Your task to perform on an android device: Go to Wikipedia Image 0: 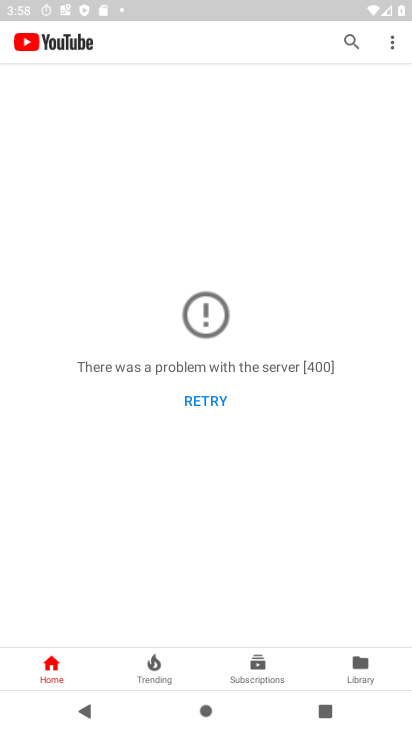
Step 0: press home button
Your task to perform on an android device: Go to Wikipedia Image 1: 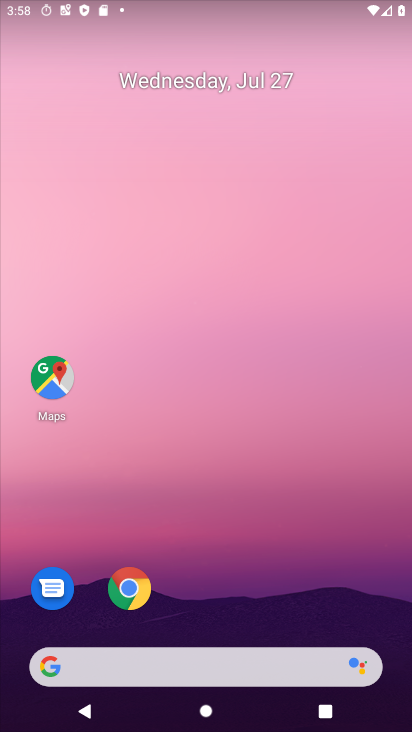
Step 1: click (54, 667)
Your task to perform on an android device: Go to Wikipedia Image 2: 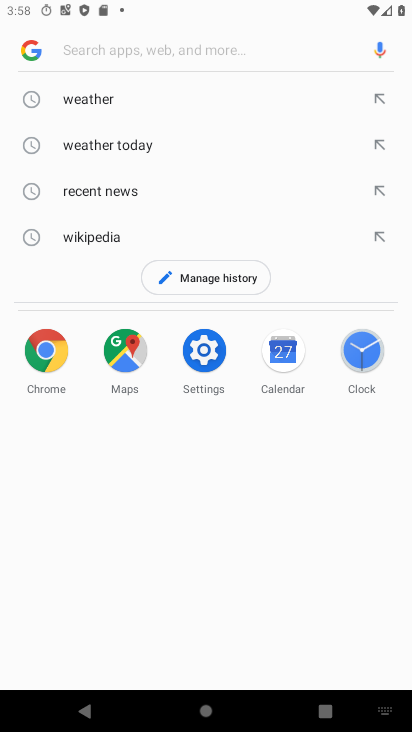
Step 2: click (89, 240)
Your task to perform on an android device: Go to Wikipedia Image 3: 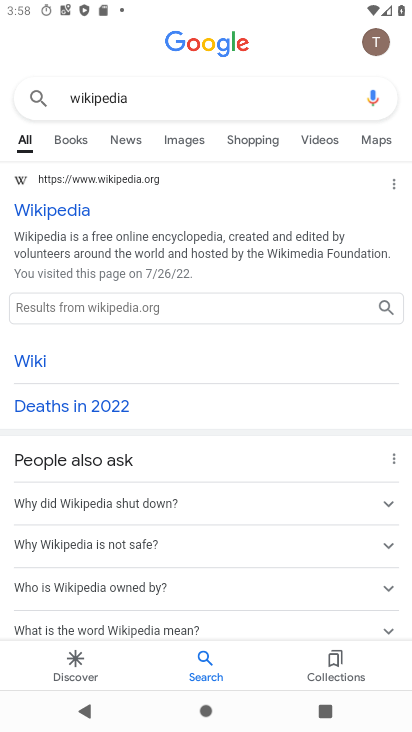
Step 3: click (60, 209)
Your task to perform on an android device: Go to Wikipedia Image 4: 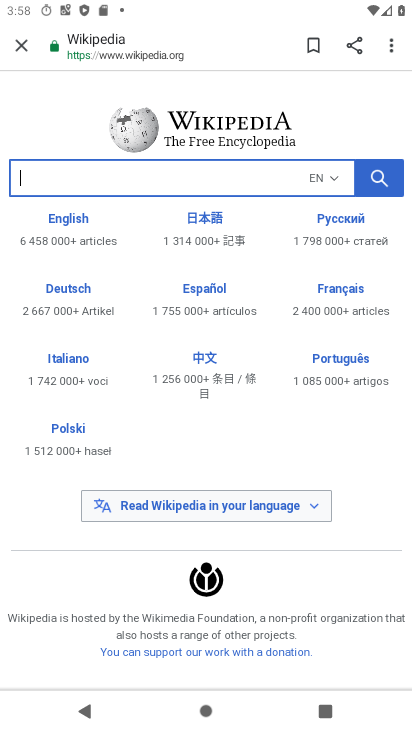
Step 4: task complete